Your task to perform on an android device: turn off airplane mode Image 0: 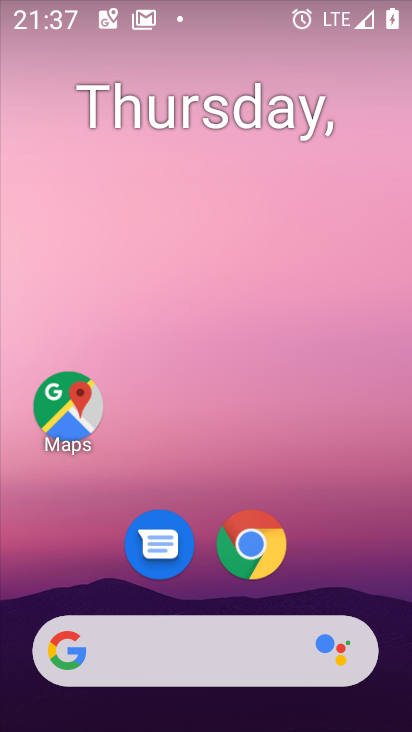
Step 0: drag from (185, 9) to (92, 713)
Your task to perform on an android device: turn off airplane mode Image 1: 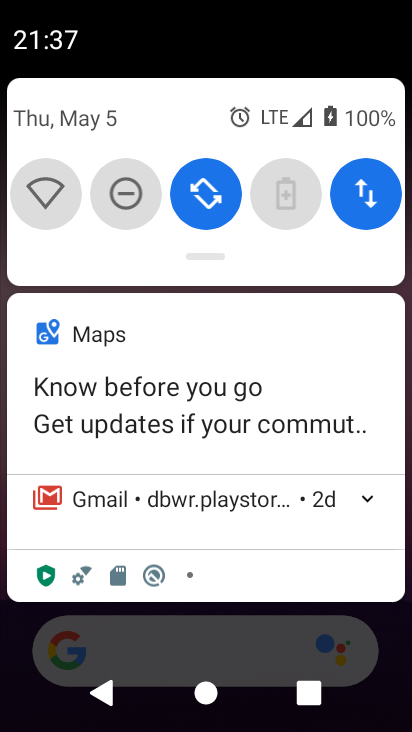
Step 1: task complete